Your task to perform on an android device: Clear the shopping cart on ebay.com. Add "razer blade" to the cart on ebay.com Image 0: 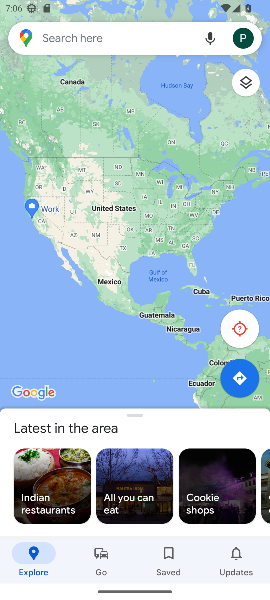
Step 0: press home button
Your task to perform on an android device: Clear the shopping cart on ebay.com. Add "razer blade" to the cart on ebay.com Image 1: 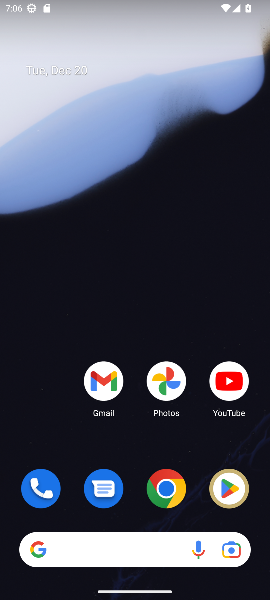
Step 1: drag from (62, 431) to (47, 74)
Your task to perform on an android device: Clear the shopping cart on ebay.com. Add "razer blade" to the cart on ebay.com Image 2: 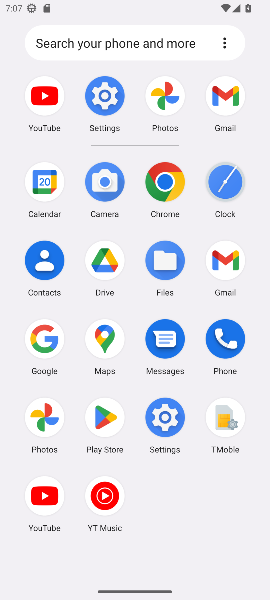
Step 2: click (33, 342)
Your task to perform on an android device: Clear the shopping cart on ebay.com. Add "razer blade" to the cart on ebay.com Image 3: 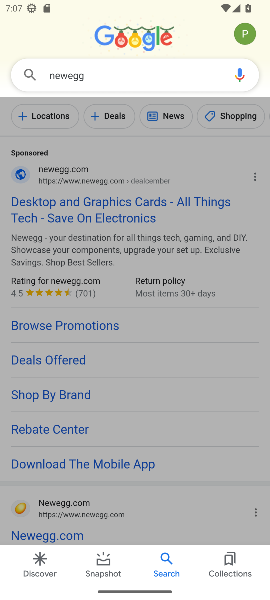
Step 3: click (111, 73)
Your task to perform on an android device: Clear the shopping cart on ebay.com. Add "razer blade" to the cart on ebay.com Image 4: 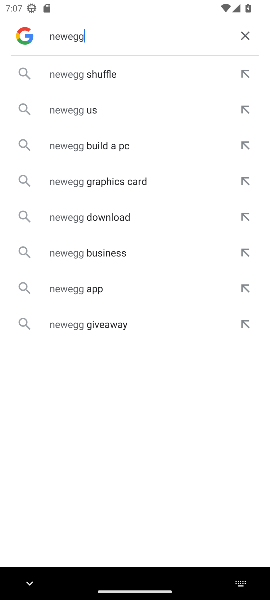
Step 4: click (243, 36)
Your task to perform on an android device: Clear the shopping cart on ebay.com. Add "razer blade" to the cart on ebay.com Image 5: 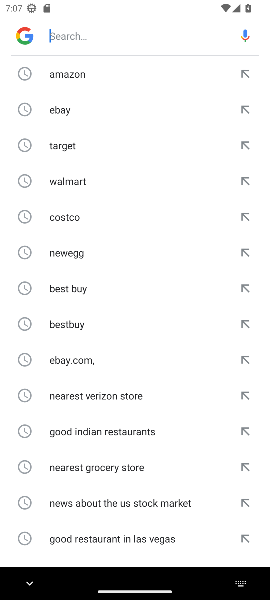
Step 5: type "ebay.com"
Your task to perform on an android device: Clear the shopping cart on ebay.com. Add "razer blade" to the cart on ebay.com Image 6: 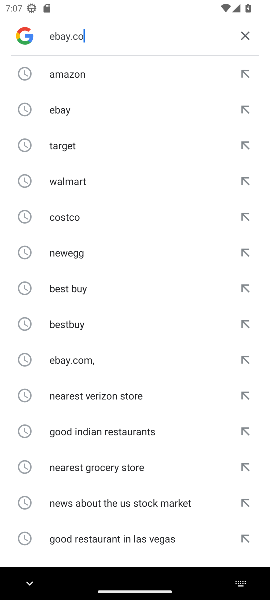
Step 6: press enter
Your task to perform on an android device: Clear the shopping cart on ebay.com. Add "razer blade" to the cart on ebay.com Image 7: 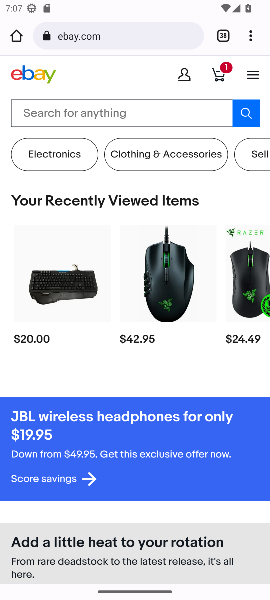
Step 7: click (221, 73)
Your task to perform on an android device: Clear the shopping cart on ebay.com. Add "razer blade" to the cart on ebay.com Image 8: 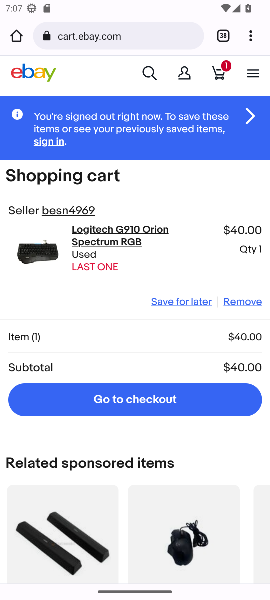
Step 8: click (233, 302)
Your task to perform on an android device: Clear the shopping cart on ebay.com. Add "razer blade" to the cart on ebay.com Image 9: 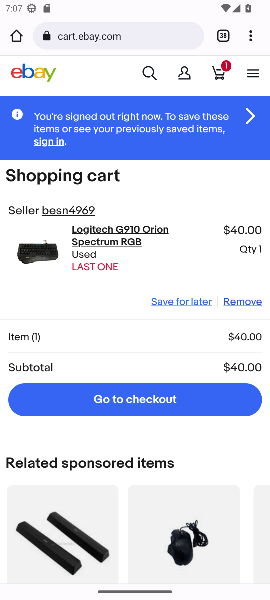
Step 9: click (234, 302)
Your task to perform on an android device: Clear the shopping cart on ebay.com. Add "razer blade" to the cart on ebay.com Image 10: 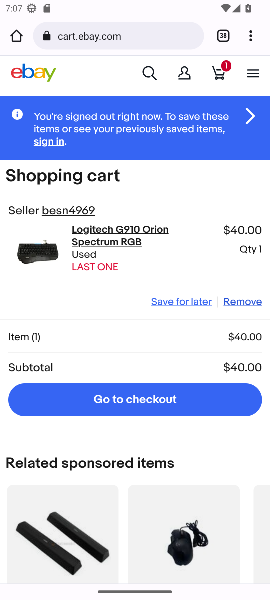
Step 10: click (228, 300)
Your task to perform on an android device: Clear the shopping cart on ebay.com. Add "razer blade" to the cart on ebay.com Image 11: 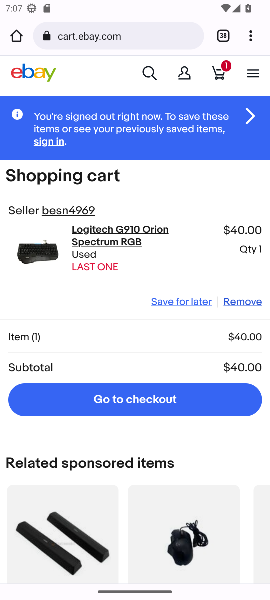
Step 11: click (249, 304)
Your task to perform on an android device: Clear the shopping cart on ebay.com. Add "razer blade" to the cart on ebay.com Image 12: 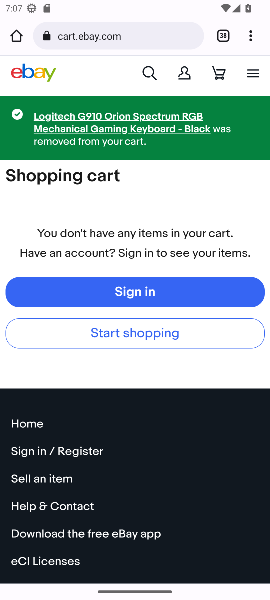
Step 12: click (145, 74)
Your task to perform on an android device: Clear the shopping cart on ebay.com. Add "razer blade" to the cart on ebay.com Image 13: 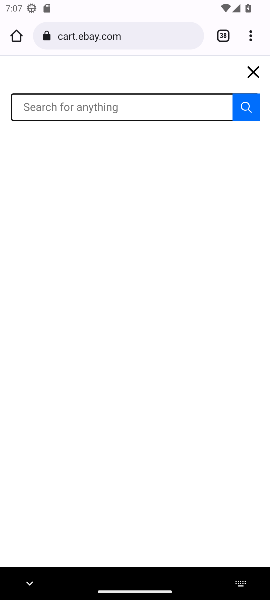
Step 13: type "razer blade"
Your task to perform on an android device: Clear the shopping cart on ebay.com. Add "razer blade" to the cart on ebay.com Image 14: 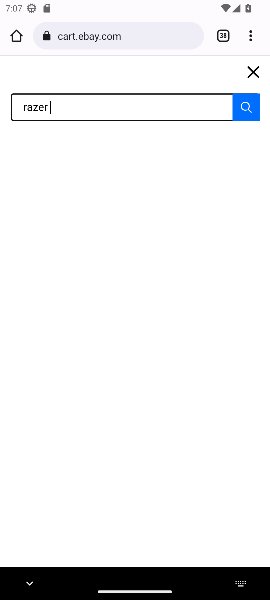
Step 14: press enter
Your task to perform on an android device: Clear the shopping cart on ebay.com. Add "razer blade" to the cart on ebay.com Image 15: 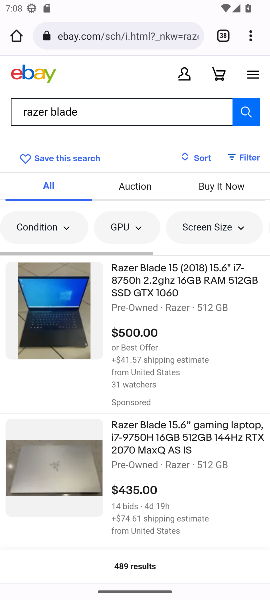
Step 15: click (156, 286)
Your task to perform on an android device: Clear the shopping cart on ebay.com. Add "razer blade" to the cart on ebay.com Image 16: 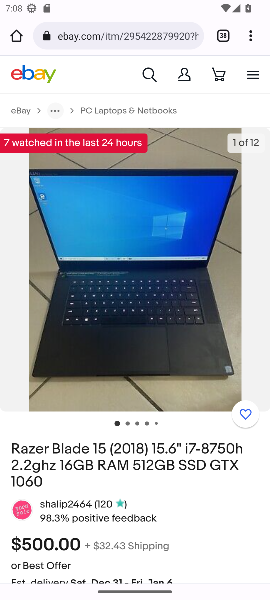
Step 16: drag from (149, 497) to (148, 181)
Your task to perform on an android device: Clear the shopping cart on ebay.com. Add "razer blade" to the cart on ebay.com Image 17: 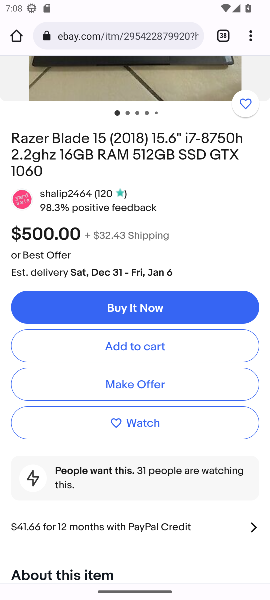
Step 17: drag from (109, 343) to (142, 336)
Your task to perform on an android device: Clear the shopping cart on ebay.com. Add "razer blade" to the cart on ebay.com Image 18: 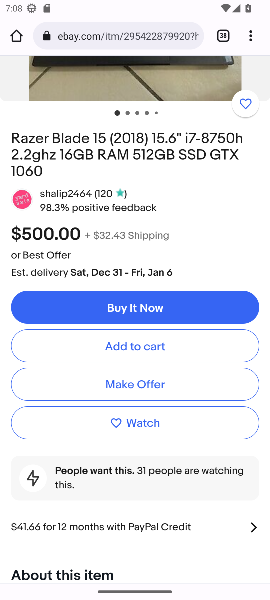
Step 18: click (119, 340)
Your task to perform on an android device: Clear the shopping cart on ebay.com. Add "razer blade" to the cart on ebay.com Image 19: 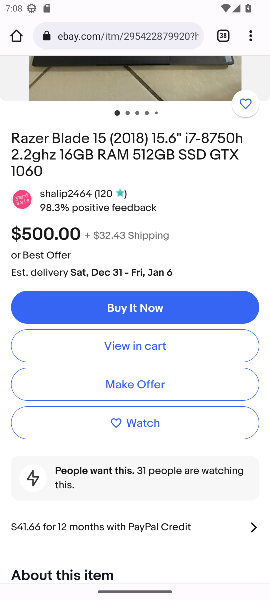
Step 19: task complete